Your task to perform on an android device: change the clock style Image 0: 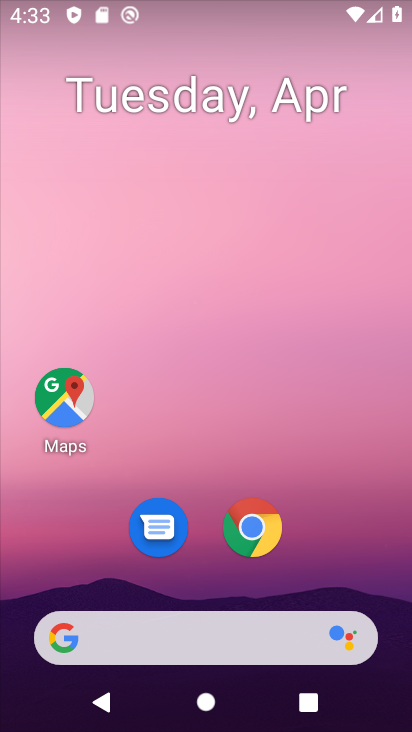
Step 0: click (252, 521)
Your task to perform on an android device: change the clock style Image 1: 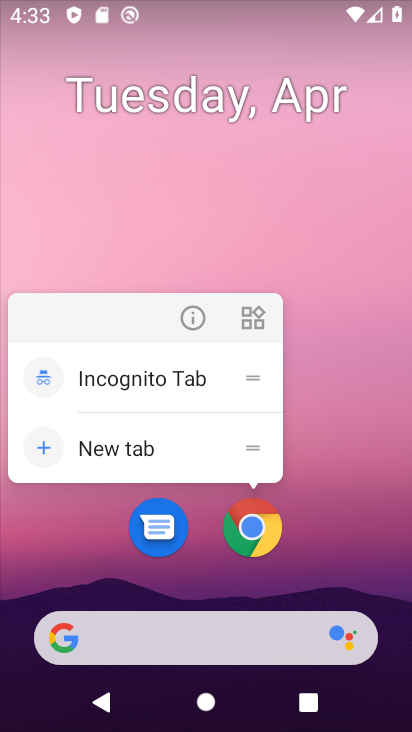
Step 1: click (259, 531)
Your task to perform on an android device: change the clock style Image 2: 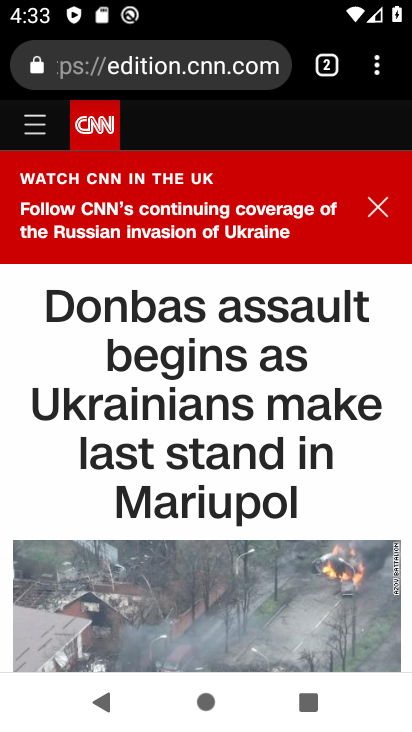
Step 2: click (323, 61)
Your task to perform on an android device: change the clock style Image 3: 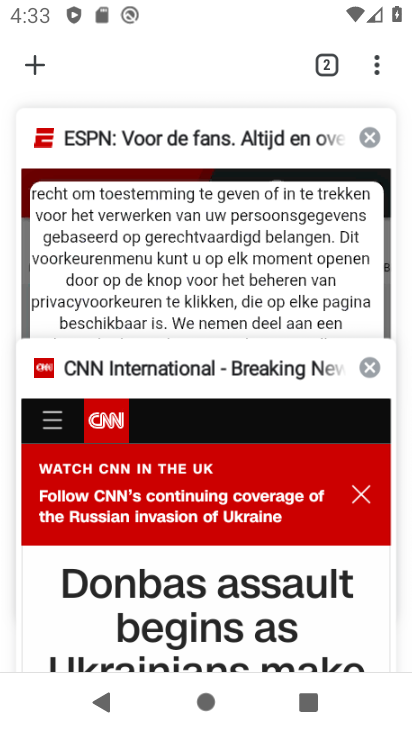
Step 3: click (38, 70)
Your task to perform on an android device: change the clock style Image 4: 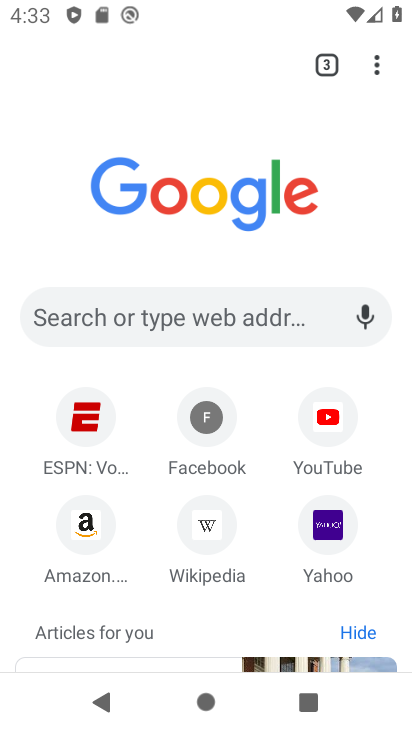
Step 4: click (79, 521)
Your task to perform on an android device: change the clock style Image 5: 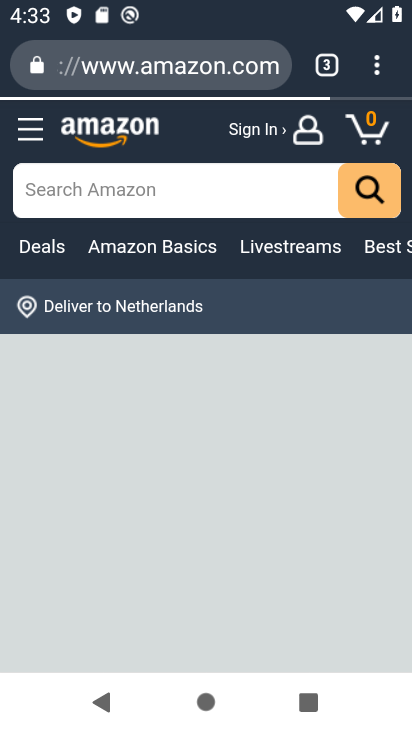
Step 5: task complete